Your task to perform on an android device: toggle data saver in the chrome app Image 0: 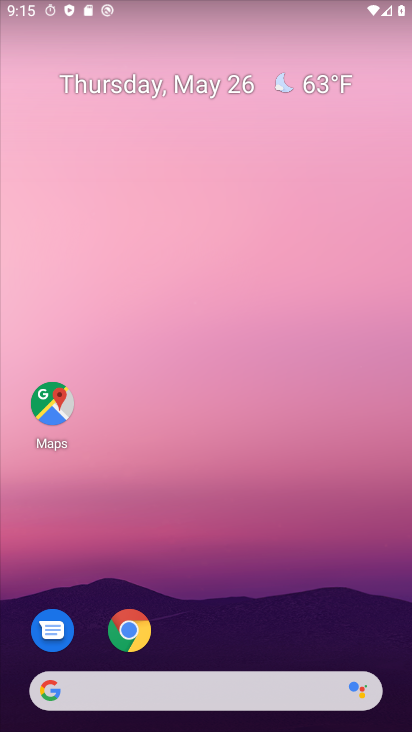
Step 0: drag from (284, 624) to (247, 195)
Your task to perform on an android device: toggle data saver in the chrome app Image 1: 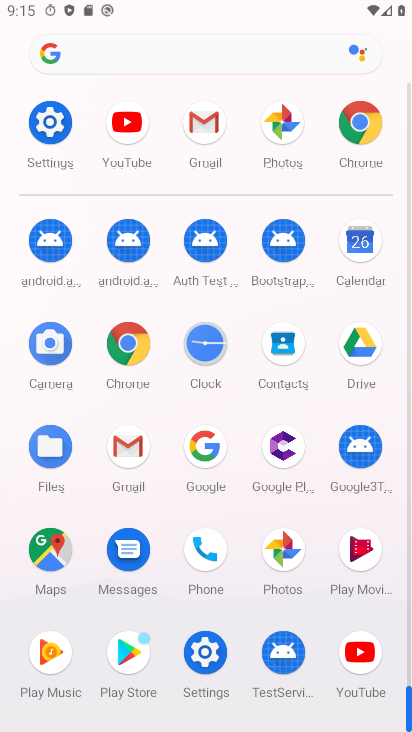
Step 1: click (362, 122)
Your task to perform on an android device: toggle data saver in the chrome app Image 2: 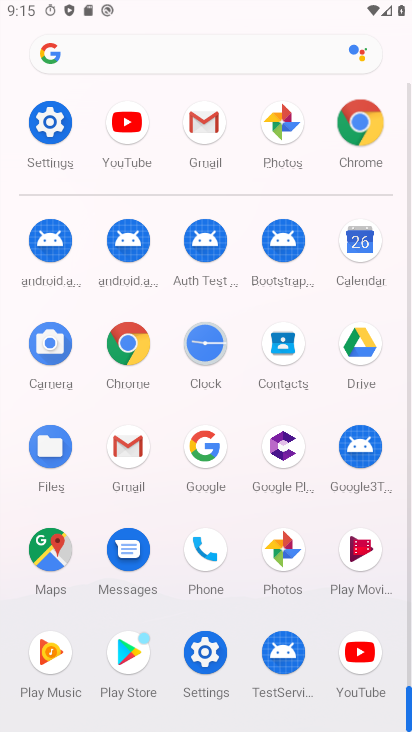
Step 2: click (369, 129)
Your task to perform on an android device: toggle data saver in the chrome app Image 3: 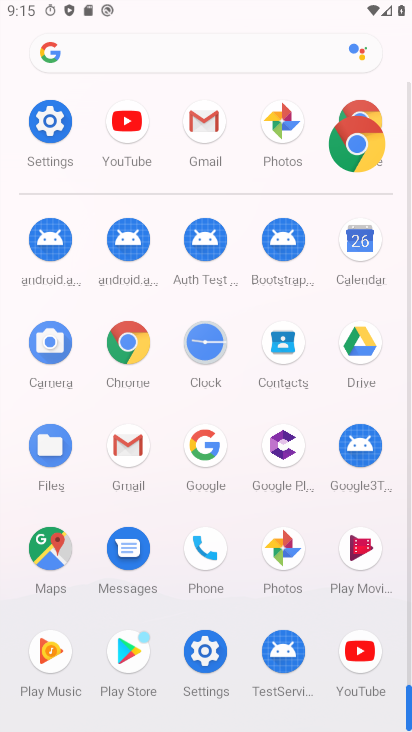
Step 3: click (370, 131)
Your task to perform on an android device: toggle data saver in the chrome app Image 4: 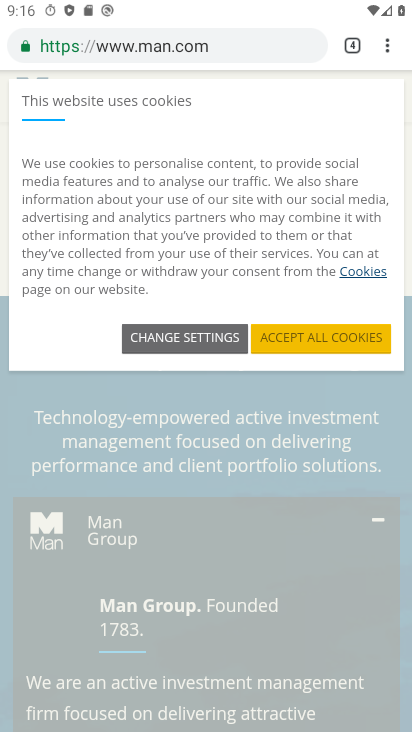
Step 4: drag from (380, 42) to (230, 559)
Your task to perform on an android device: toggle data saver in the chrome app Image 5: 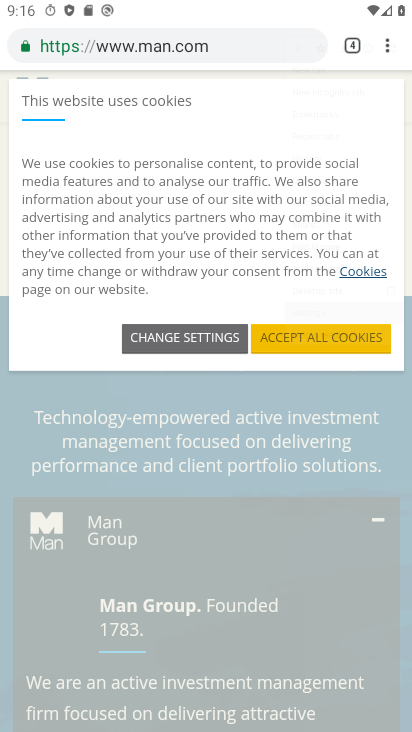
Step 5: click (235, 558)
Your task to perform on an android device: toggle data saver in the chrome app Image 6: 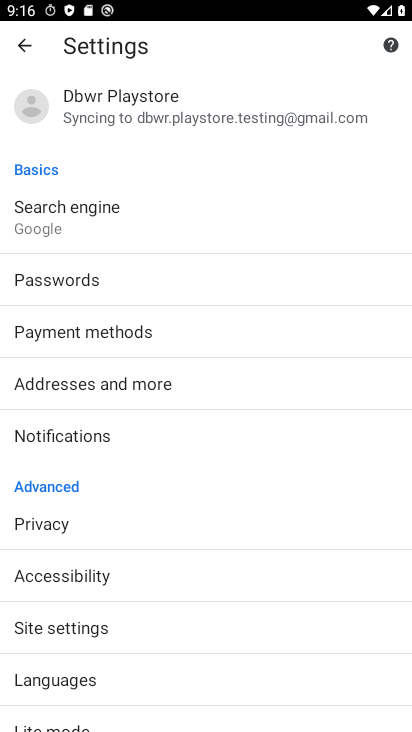
Step 6: drag from (59, 574) to (119, 244)
Your task to perform on an android device: toggle data saver in the chrome app Image 7: 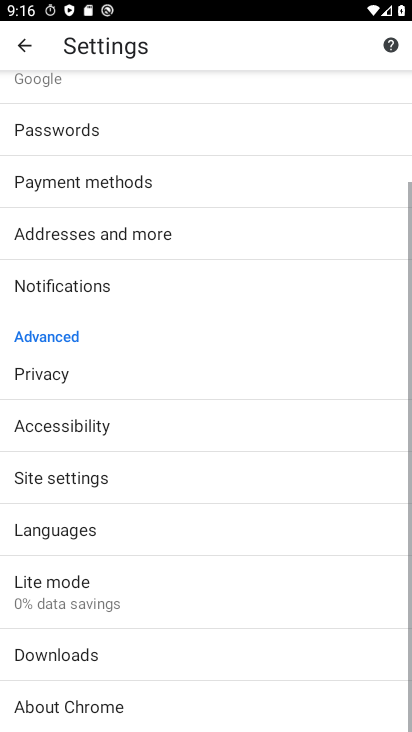
Step 7: click (39, 588)
Your task to perform on an android device: toggle data saver in the chrome app Image 8: 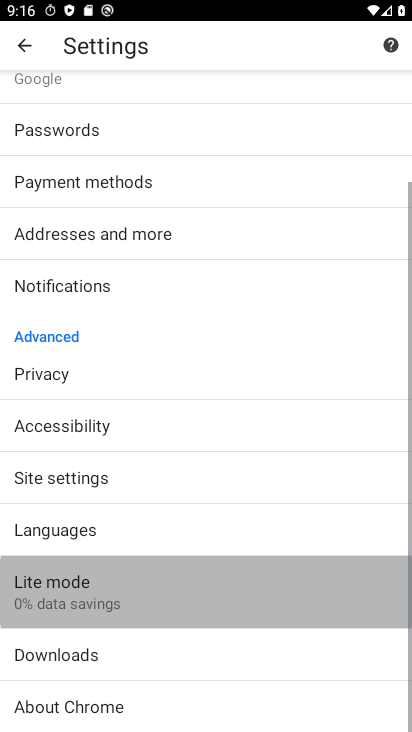
Step 8: click (40, 586)
Your task to perform on an android device: toggle data saver in the chrome app Image 9: 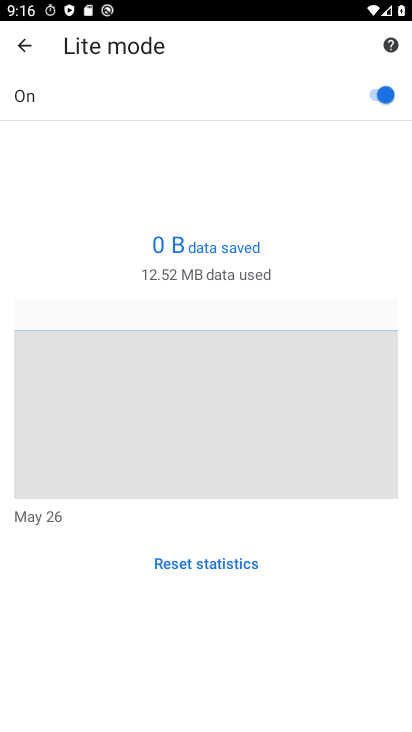
Step 9: click (387, 92)
Your task to perform on an android device: toggle data saver in the chrome app Image 10: 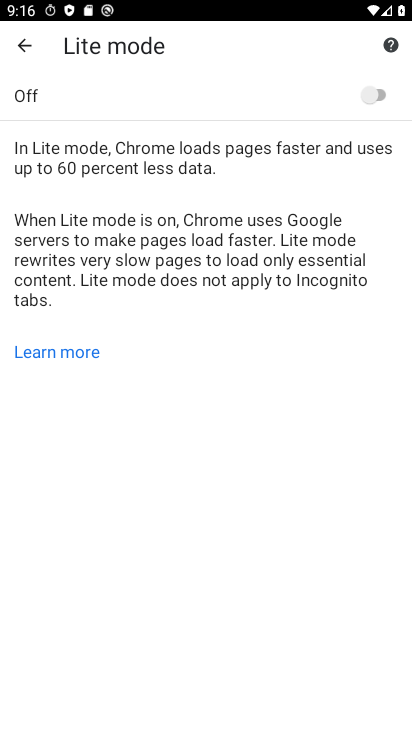
Step 10: task complete